Your task to perform on an android device: Open Amazon Image 0: 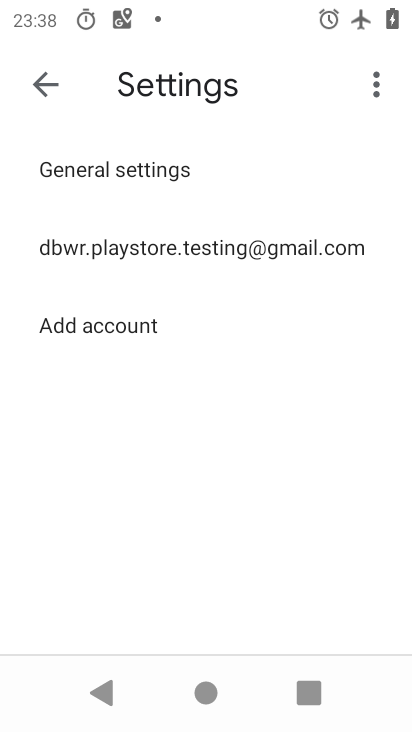
Step 0: press home button
Your task to perform on an android device: Open Amazon Image 1: 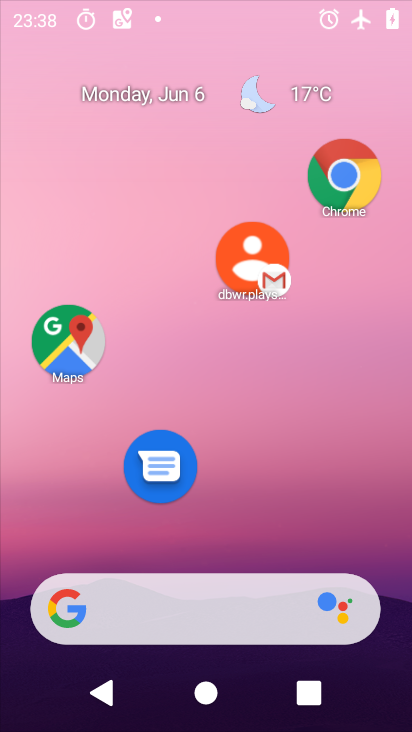
Step 1: drag from (13, 636) to (233, 132)
Your task to perform on an android device: Open Amazon Image 2: 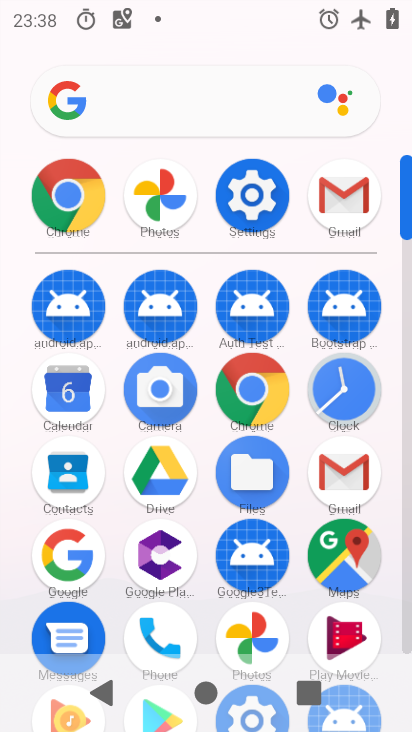
Step 2: click (247, 396)
Your task to perform on an android device: Open Amazon Image 3: 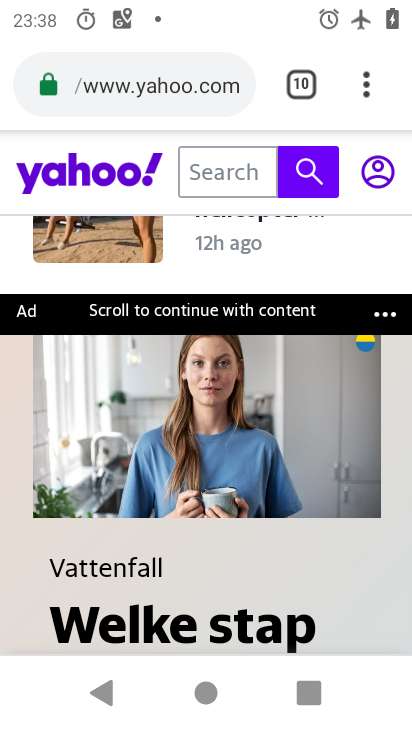
Step 3: click (296, 81)
Your task to perform on an android device: Open Amazon Image 4: 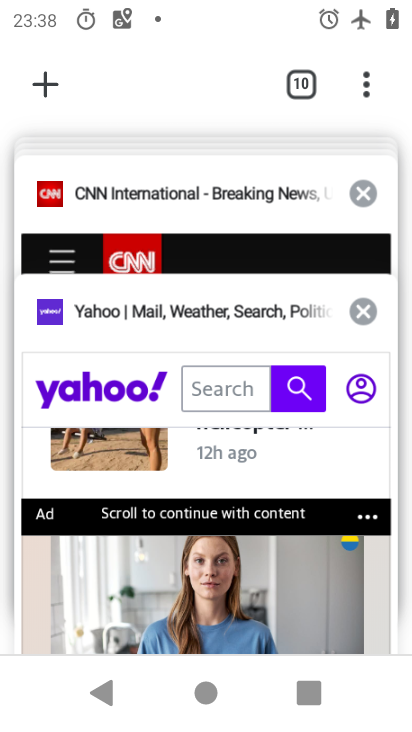
Step 4: click (357, 303)
Your task to perform on an android device: Open Amazon Image 5: 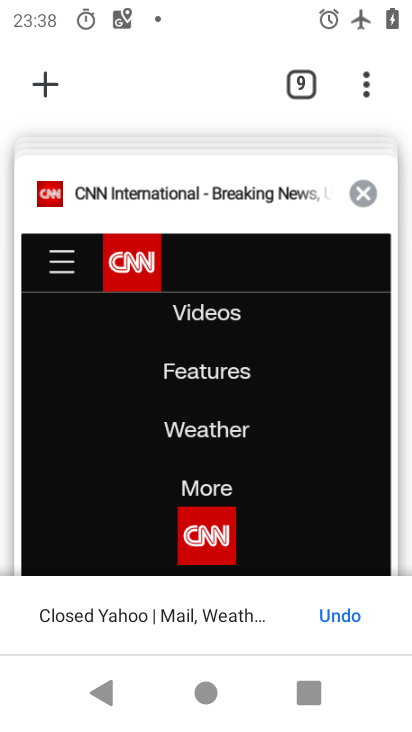
Step 5: click (363, 197)
Your task to perform on an android device: Open Amazon Image 6: 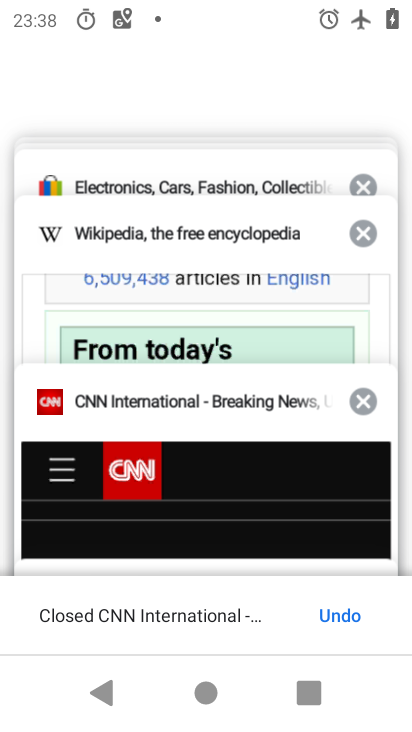
Step 6: click (363, 197)
Your task to perform on an android device: Open Amazon Image 7: 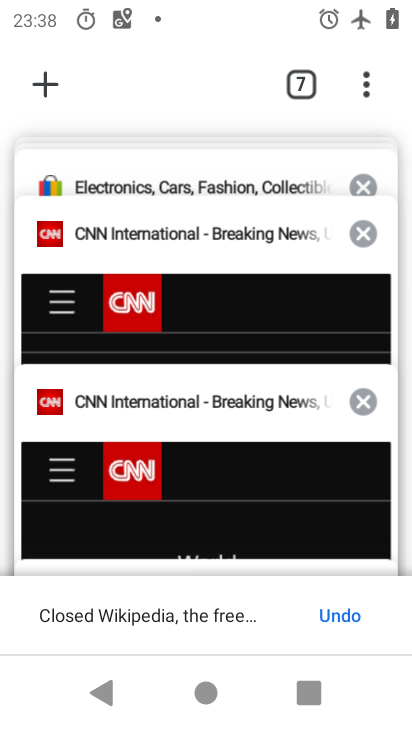
Step 7: click (363, 197)
Your task to perform on an android device: Open Amazon Image 8: 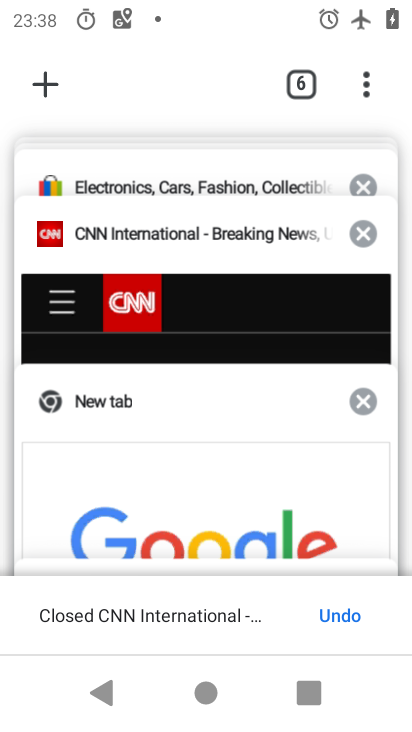
Step 8: click (361, 180)
Your task to perform on an android device: Open Amazon Image 9: 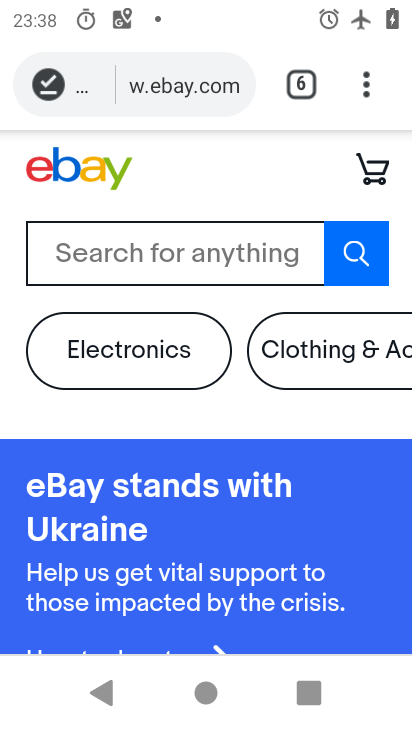
Step 9: click (279, 99)
Your task to perform on an android device: Open Amazon Image 10: 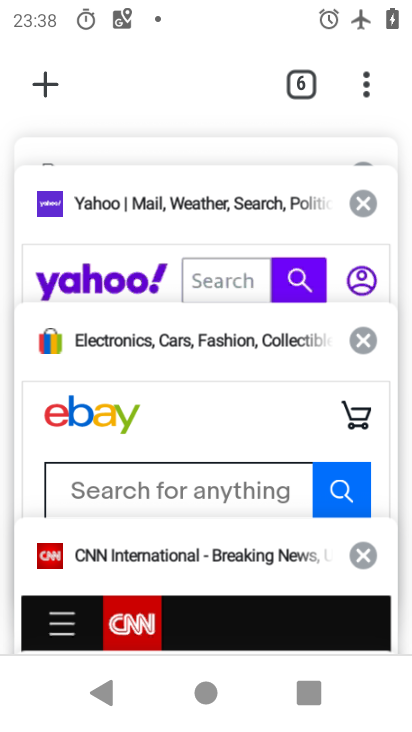
Step 10: click (372, 344)
Your task to perform on an android device: Open Amazon Image 11: 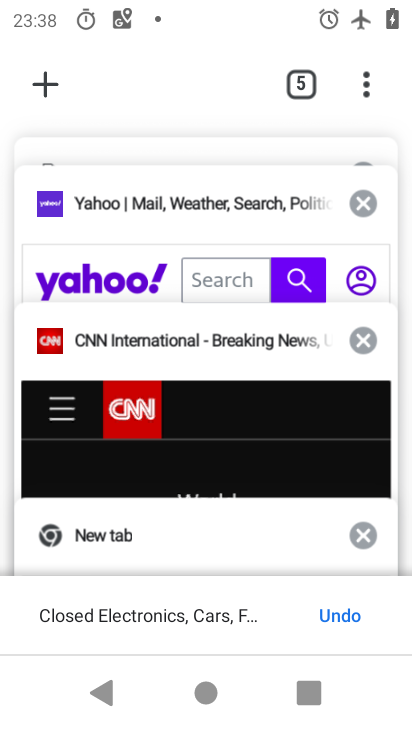
Step 11: click (57, 92)
Your task to perform on an android device: Open Amazon Image 12: 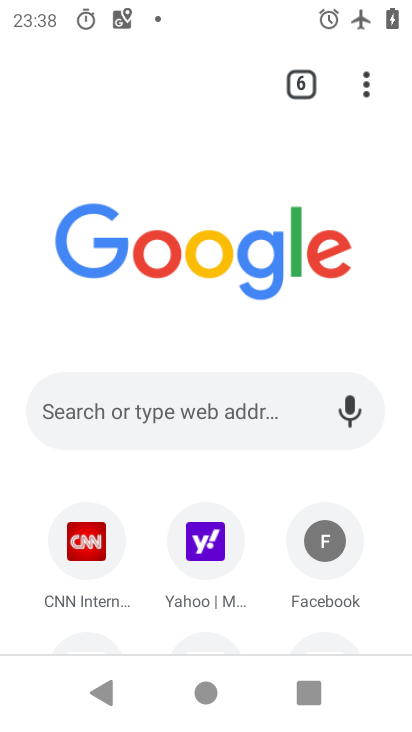
Step 12: drag from (280, 561) to (297, 156)
Your task to perform on an android device: Open Amazon Image 13: 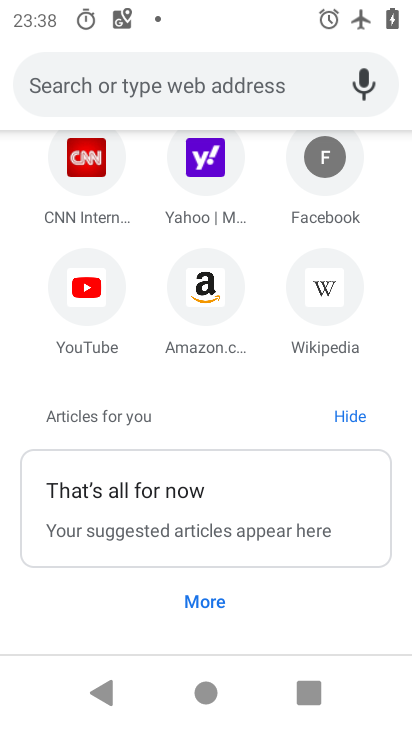
Step 13: click (220, 273)
Your task to perform on an android device: Open Amazon Image 14: 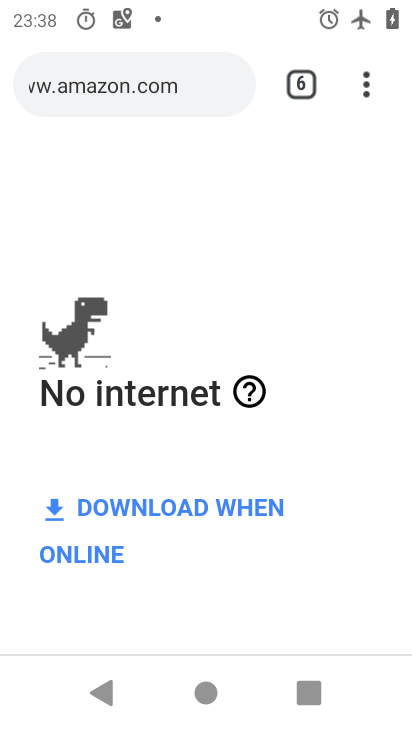
Step 14: task complete